Your task to perform on an android device: Search for "alienware aurora" on walmart.com, select the first entry, and add it to the cart. Image 0: 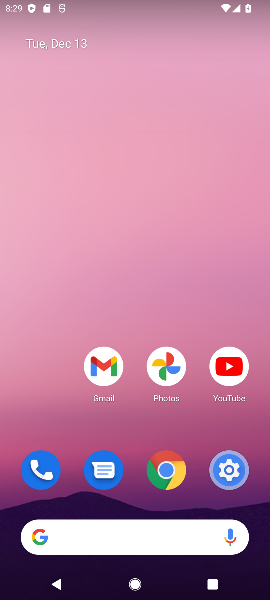
Step 0: click (60, 538)
Your task to perform on an android device: Search for "alienware aurora" on walmart.com, select the first entry, and add it to the cart. Image 1: 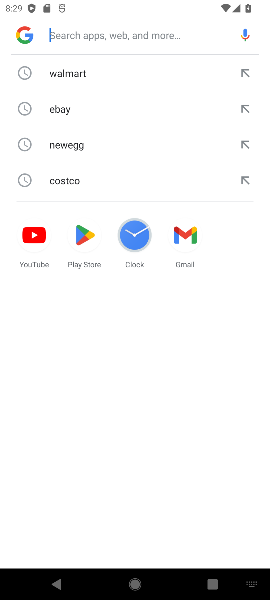
Step 1: type "walmart.com"
Your task to perform on an android device: Search for "alienware aurora" on walmart.com, select the first entry, and add it to the cart. Image 2: 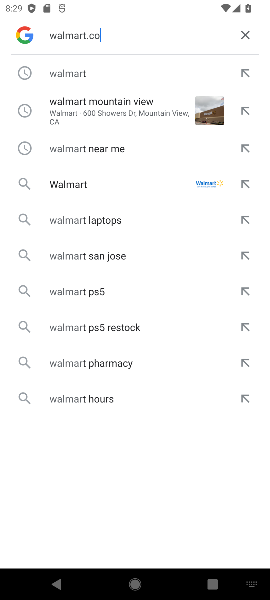
Step 2: press enter
Your task to perform on an android device: Search for "alienware aurora" on walmart.com, select the first entry, and add it to the cart. Image 3: 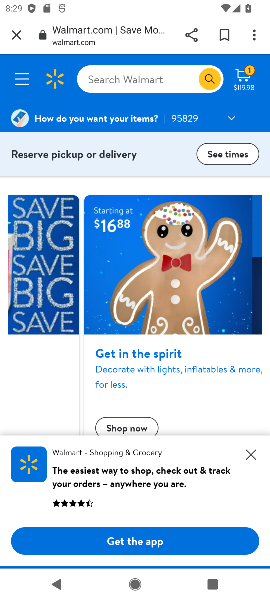
Step 3: click (99, 82)
Your task to perform on an android device: Search for "alienware aurora" on walmart.com, select the first entry, and add it to the cart. Image 4: 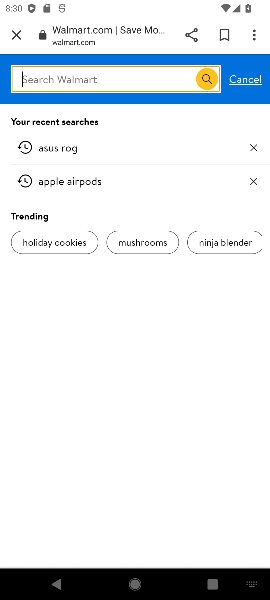
Step 4: type "alienware aurora"
Your task to perform on an android device: Search for "alienware aurora" on walmart.com, select the first entry, and add it to the cart. Image 5: 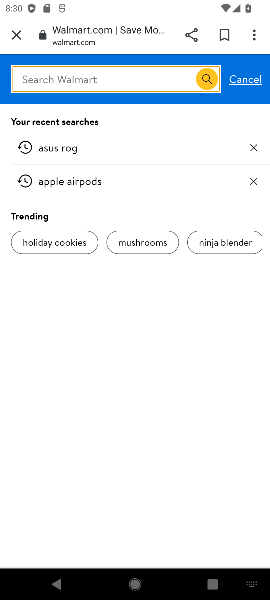
Step 5: press enter
Your task to perform on an android device: Search for "alienware aurora" on walmart.com, select the first entry, and add it to the cart. Image 6: 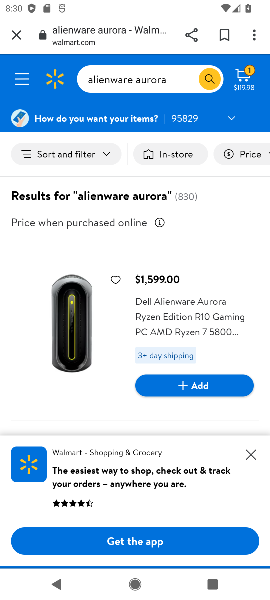
Step 6: click (200, 387)
Your task to perform on an android device: Search for "alienware aurora" on walmart.com, select the first entry, and add it to the cart. Image 7: 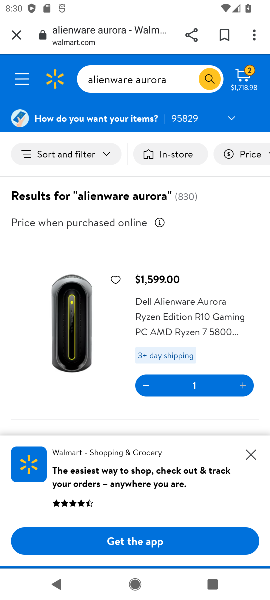
Step 7: click (254, 451)
Your task to perform on an android device: Search for "alienware aurora" on walmart.com, select the first entry, and add it to the cart. Image 8: 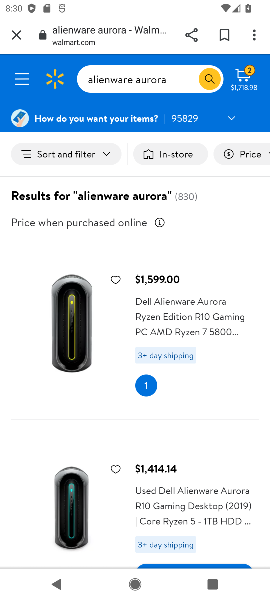
Step 8: task complete